Your task to perform on an android device: turn on showing notifications on the lock screen Image 0: 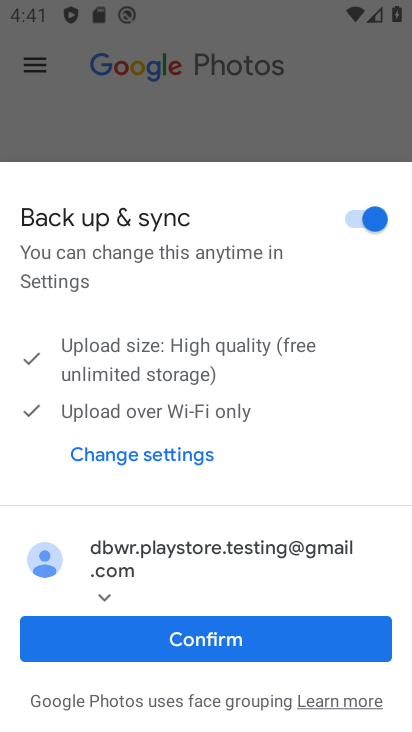
Step 0: press home button
Your task to perform on an android device: turn on showing notifications on the lock screen Image 1: 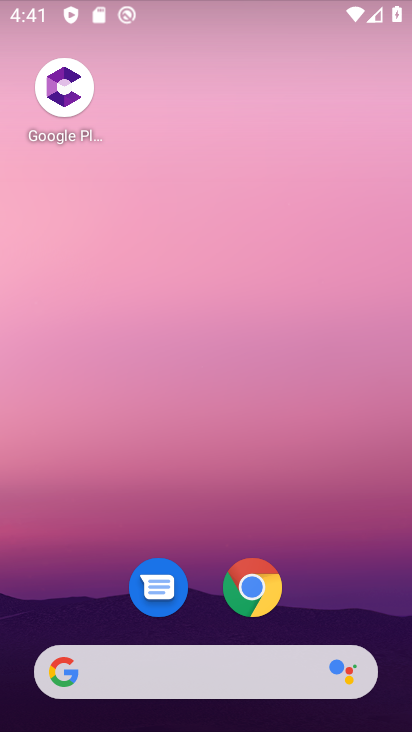
Step 1: drag from (139, 726) to (113, 108)
Your task to perform on an android device: turn on showing notifications on the lock screen Image 2: 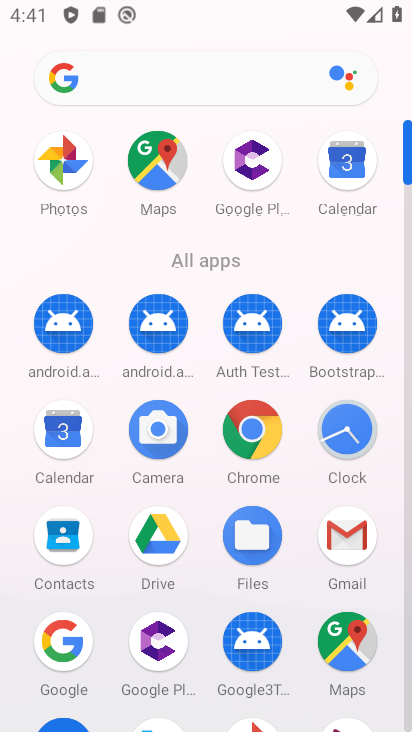
Step 2: drag from (114, 620) to (140, 223)
Your task to perform on an android device: turn on showing notifications on the lock screen Image 3: 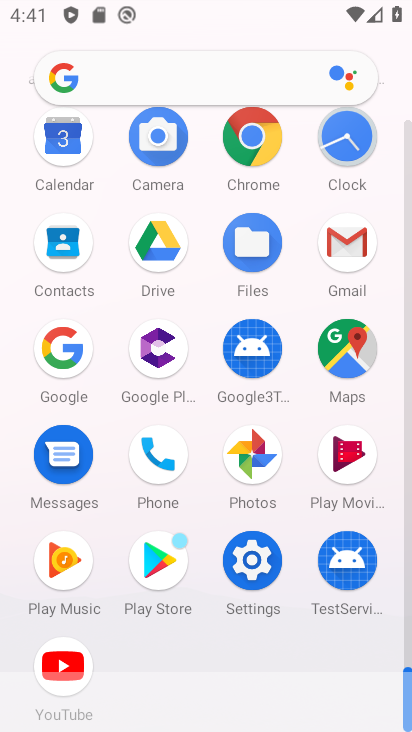
Step 3: click (256, 578)
Your task to perform on an android device: turn on showing notifications on the lock screen Image 4: 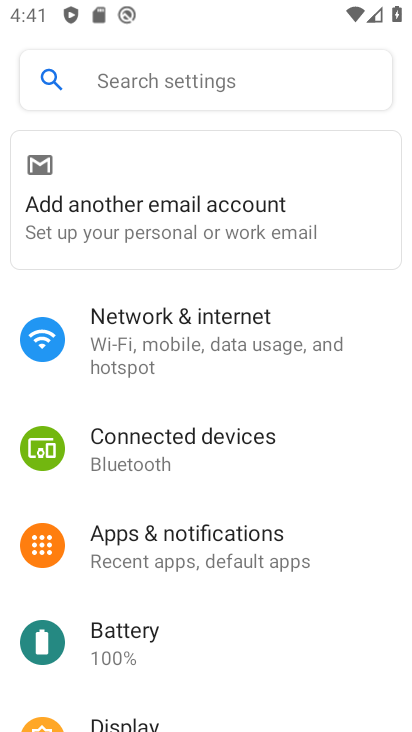
Step 4: click (224, 558)
Your task to perform on an android device: turn on showing notifications on the lock screen Image 5: 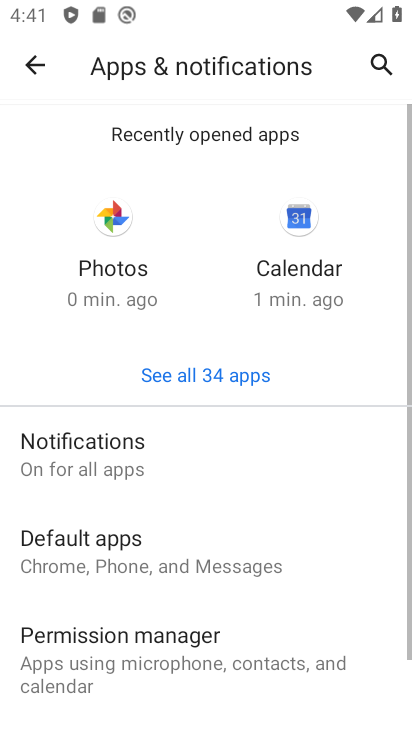
Step 5: click (101, 470)
Your task to perform on an android device: turn on showing notifications on the lock screen Image 6: 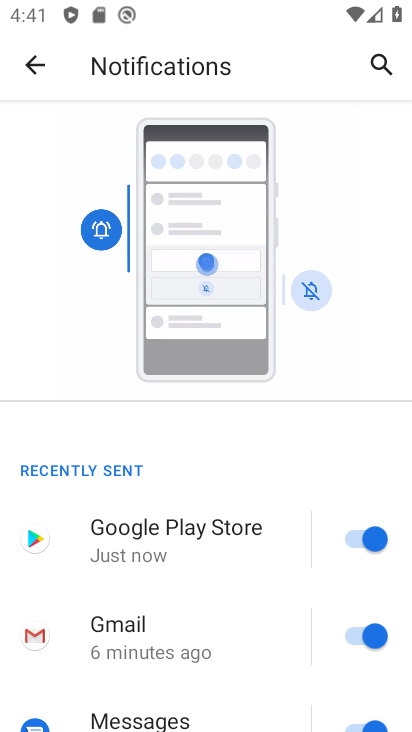
Step 6: drag from (218, 700) to (274, 215)
Your task to perform on an android device: turn on showing notifications on the lock screen Image 7: 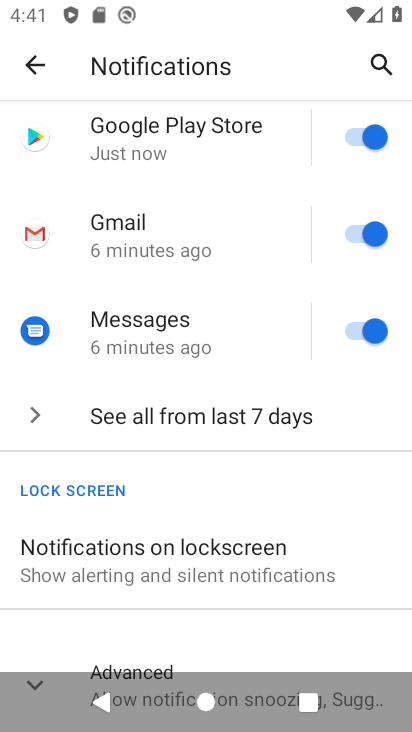
Step 7: click (200, 577)
Your task to perform on an android device: turn on showing notifications on the lock screen Image 8: 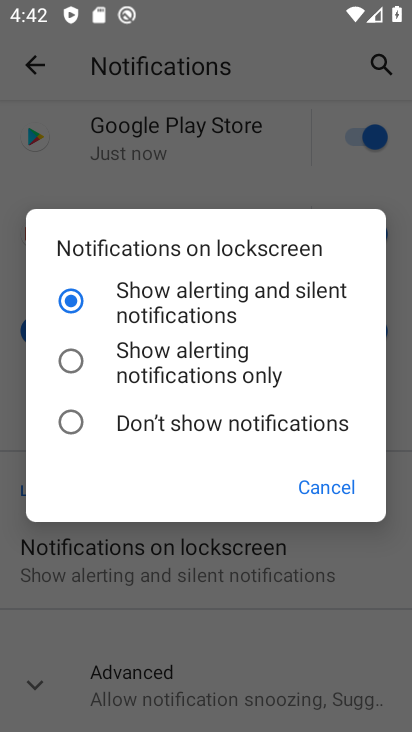
Step 8: task complete